Your task to perform on an android device: Open the calendar and show me this week's events? Image 0: 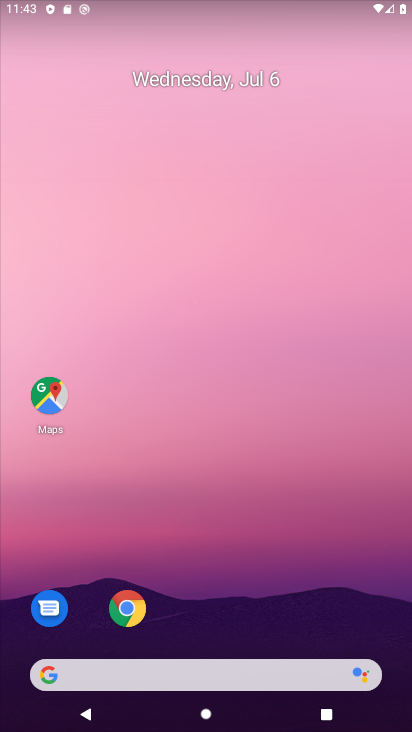
Step 0: drag from (261, 547) to (183, 203)
Your task to perform on an android device: Open the calendar and show me this week's events? Image 1: 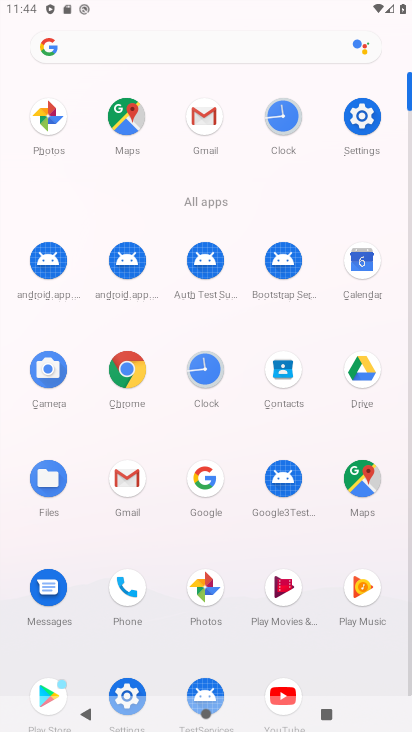
Step 1: click (367, 266)
Your task to perform on an android device: Open the calendar and show me this week's events? Image 2: 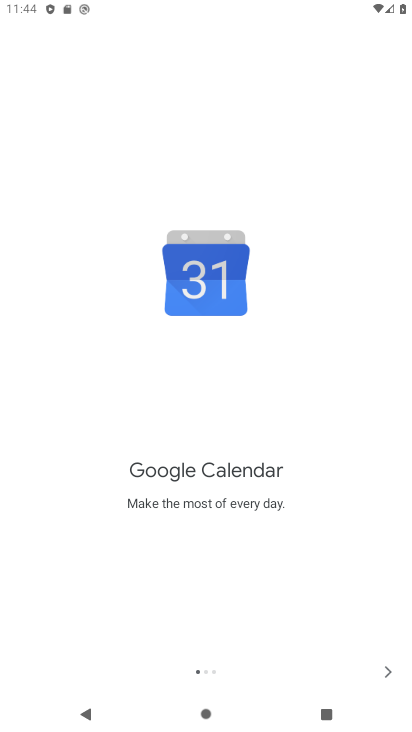
Step 2: click (389, 670)
Your task to perform on an android device: Open the calendar and show me this week's events? Image 3: 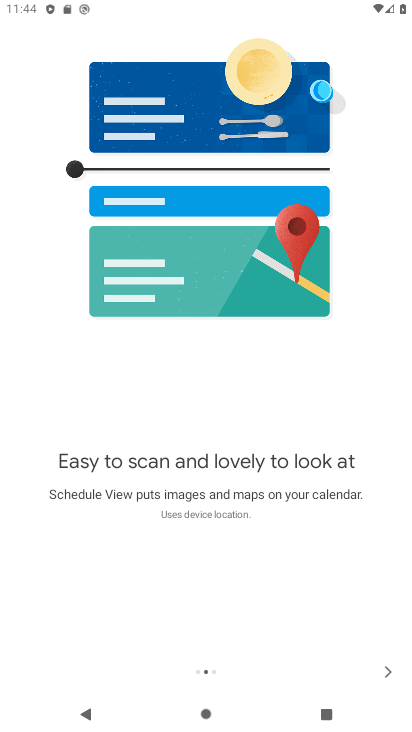
Step 3: click (389, 670)
Your task to perform on an android device: Open the calendar and show me this week's events? Image 4: 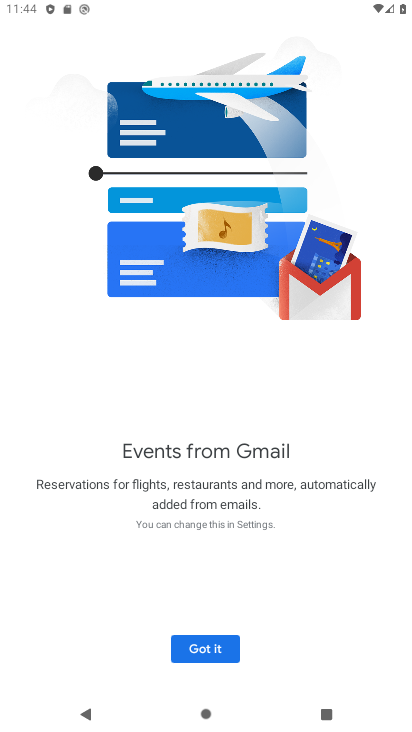
Step 4: click (216, 644)
Your task to perform on an android device: Open the calendar and show me this week's events? Image 5: 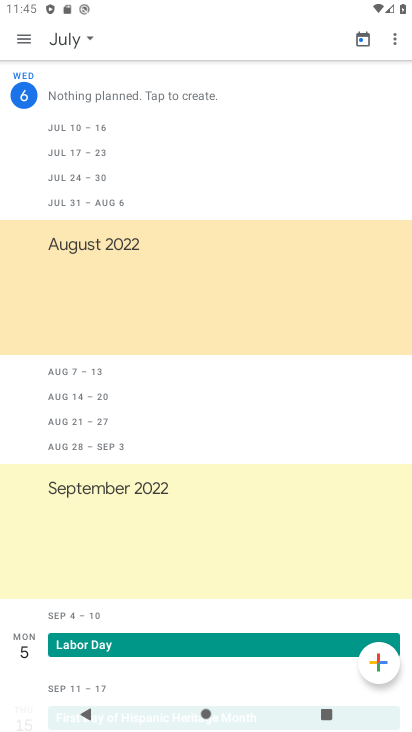
Step 5: click (16, 39)
Your task to perform on an android device: Open the calendar and show me this week's events? Image 6: 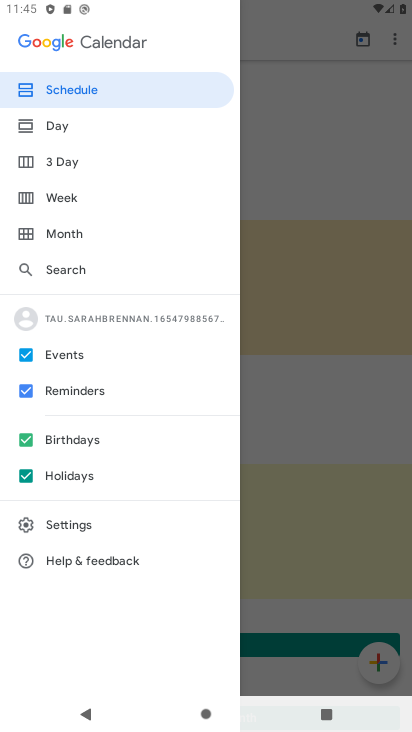
Step 6: click (72, 197)
Your task to perform on an android device: Open the calendar and show me this week's events? Image 7: 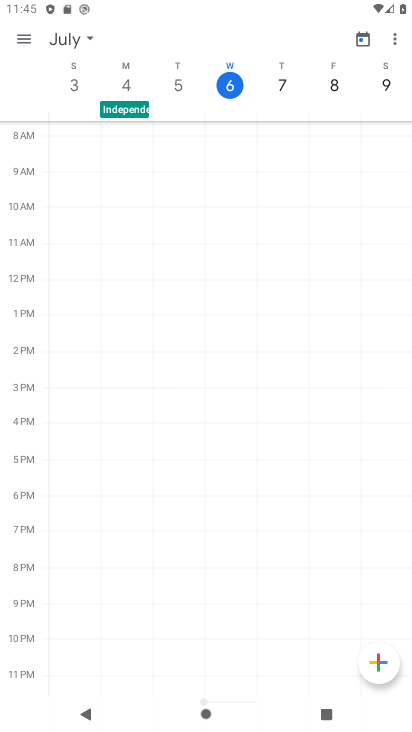
Step 7: task complete